Your task to perform on an android device: allow cookies in the chrome app Image 0: 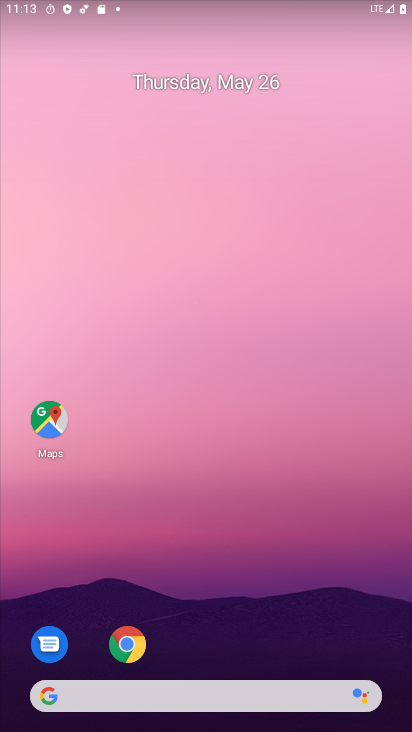
Step 0: click (129, 645)
Your task to perform on an android device: allow cookies in the chrome app Image 1: 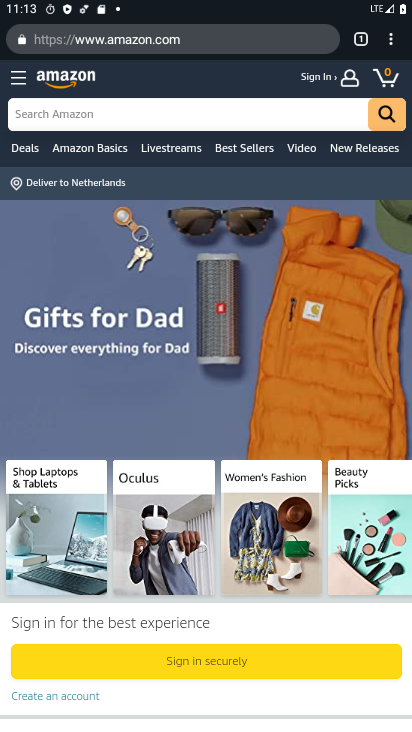
Step 1: click (393, 40)
Your task to perform on an android device: allow cookies in the chrome app Image 2: 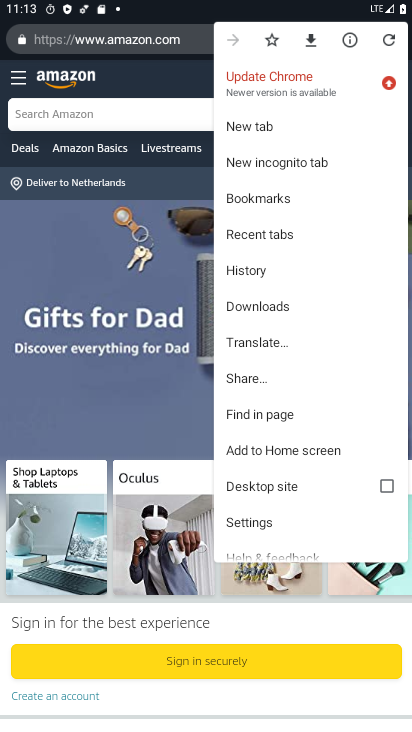
Step 2: click (260, 521)
Your task to perform on an android device: allow cookies in the chrome app Image 3: 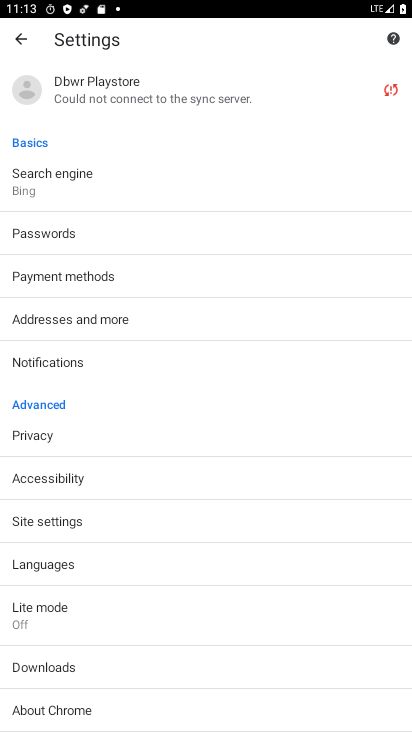
Step 3: click (39, 523)
Your task to perform on an android device: allow cookies in the chrome app Image 4: 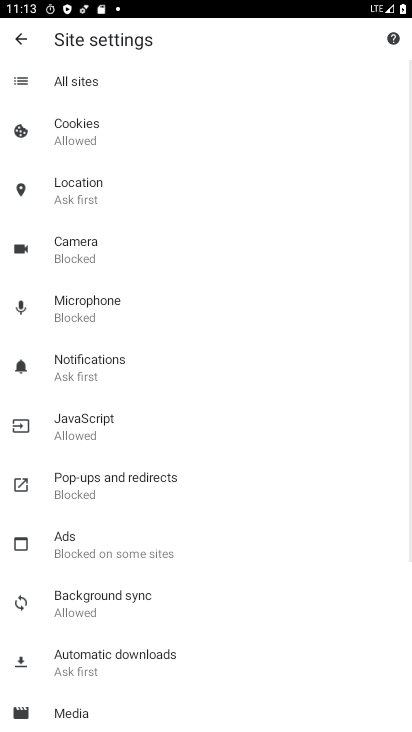
Step 4: click (89, 146)
Your task to perform on an android device: allow cookies in the chrome app Image 5: 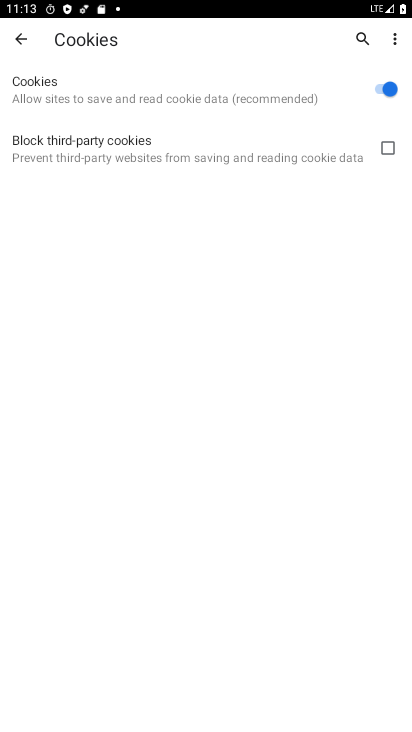
Step 5: task complete